Your task to perform on an android device: Open internet settings Image 0: 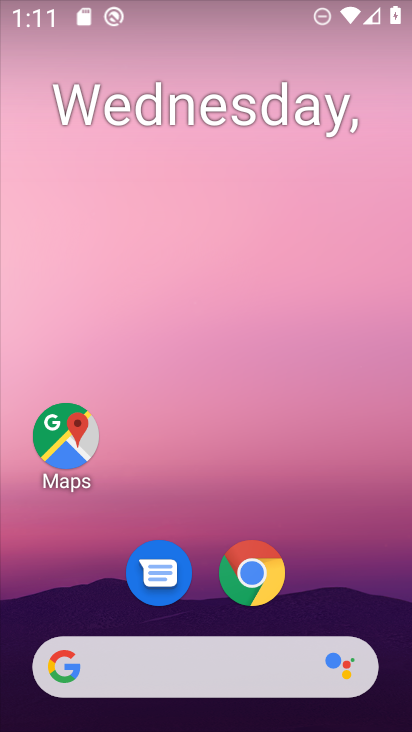
Step 0: drag from (206, 594) to (245, 38)
Your task to perform on an android device: Open internet settings Image 1: 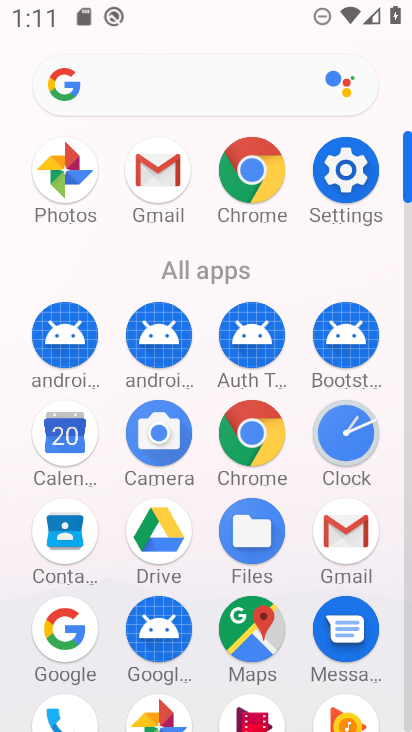
Step 1: click (341, 182)
Your task to perform on an android device: Open internet settings Image 2: 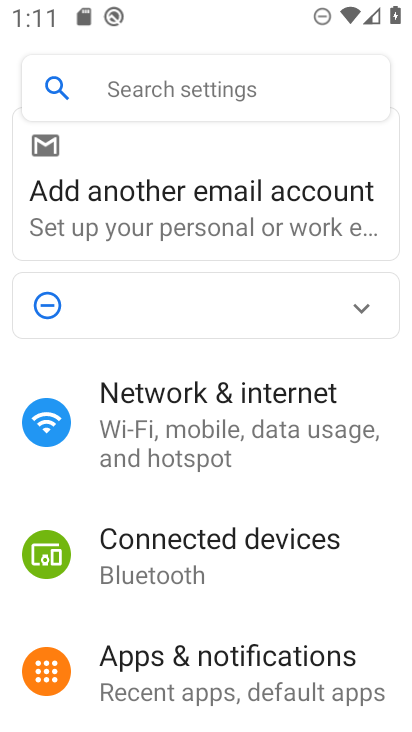
Step 2: click (190, 461)
Your task to perform on an android device: Open internet settings Image 3: 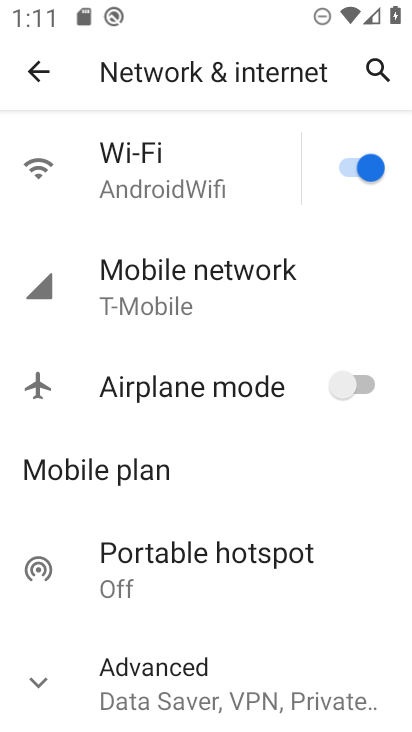
Step 3: click (215, 321)
Your task to perform on an android device: Open internet settings Image 4: 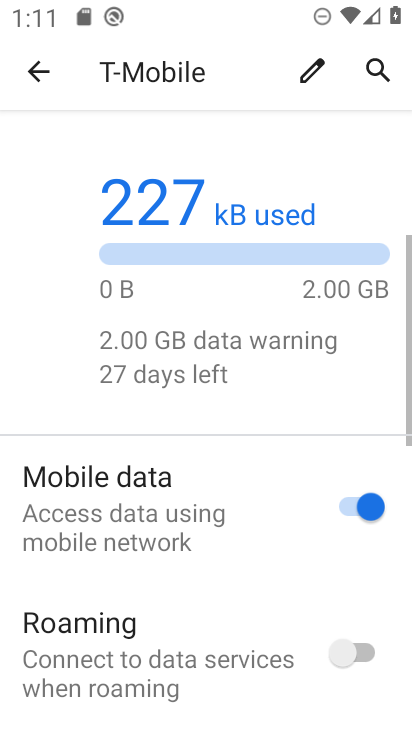
Step 4: task complete